Your task to perform on an android device: Open CNN.com Image 0: 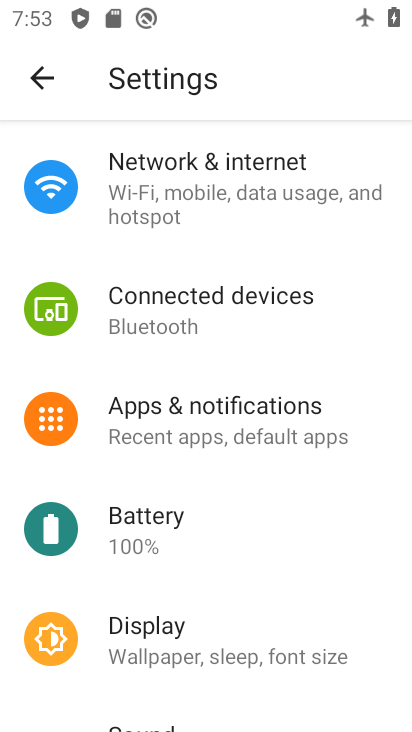
Step 0: press home button
Your task to perform on an android device: Open CNN.com Image 1: 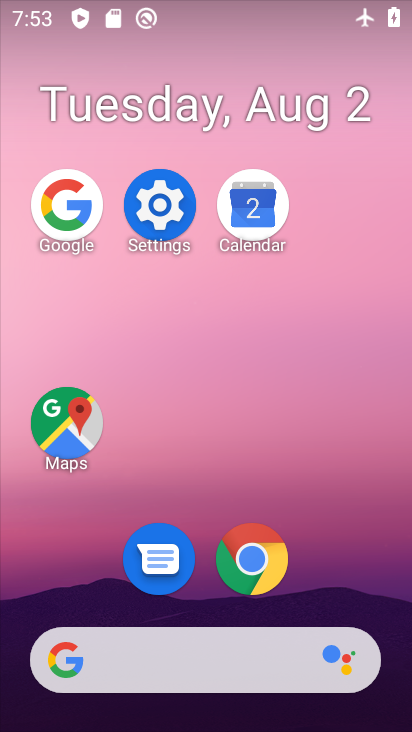
Step 1: click (259, 557)
Your task to perform on an android device: Open CNN.com Image 2: 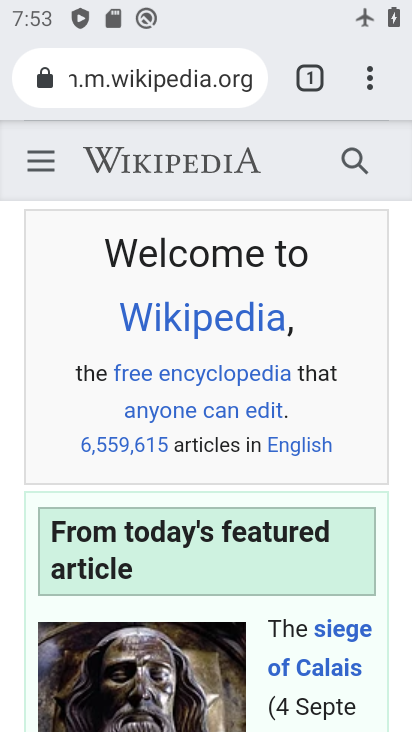
Step 2: click (293, 90)
Your task to perform on an android device: Open CNN.com Image 3: 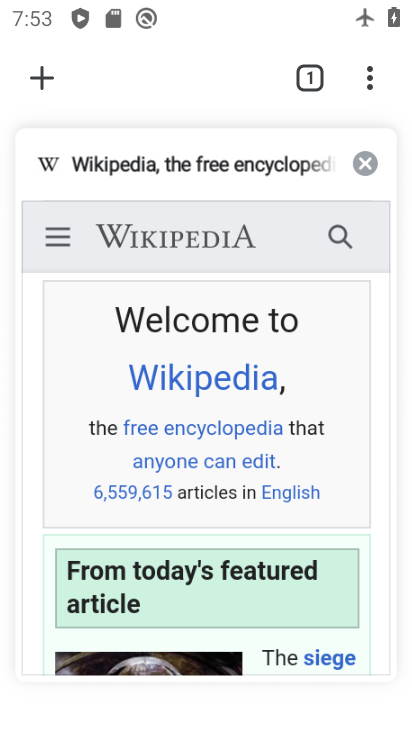
Step 3: click (55, 86)
Your task to perform on an android device: Open CNN.com Image 4: 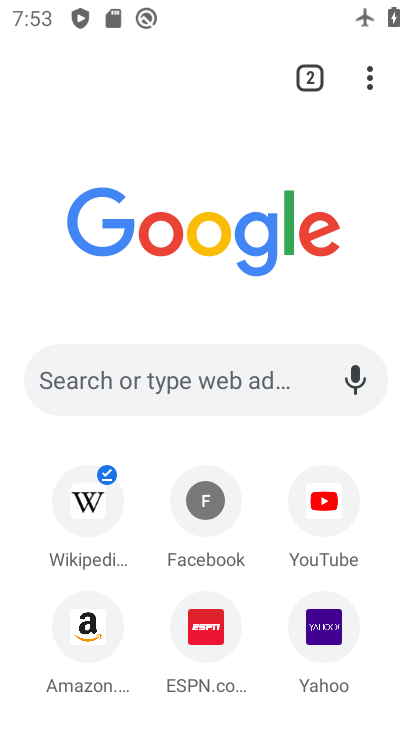
Step 4: click (175, 376)
Your task to perform on an android device: Open CNN.com Image 5: 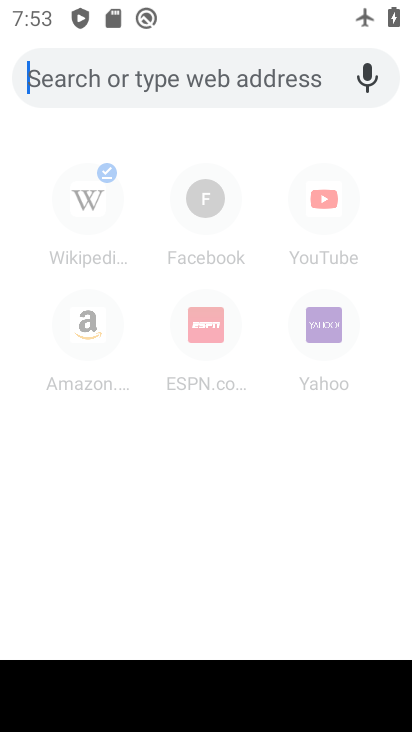
Step 5: type "cnn"
Your task to perform on an android device: Open CNN.com Image 6: 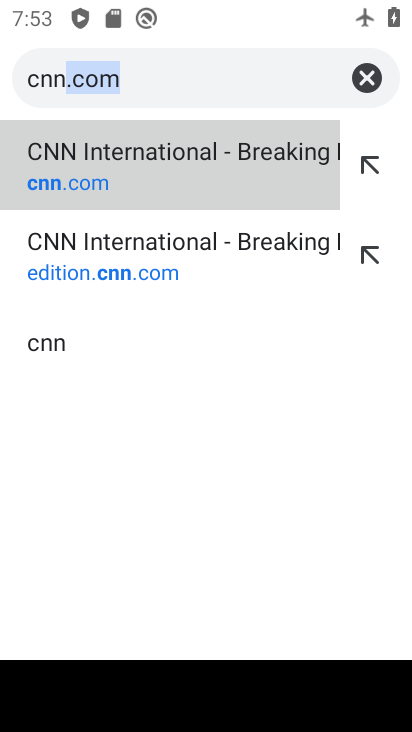
Step 6: click (110, 164)
Your task to perform on an android device: Open CNN.com Image 7: 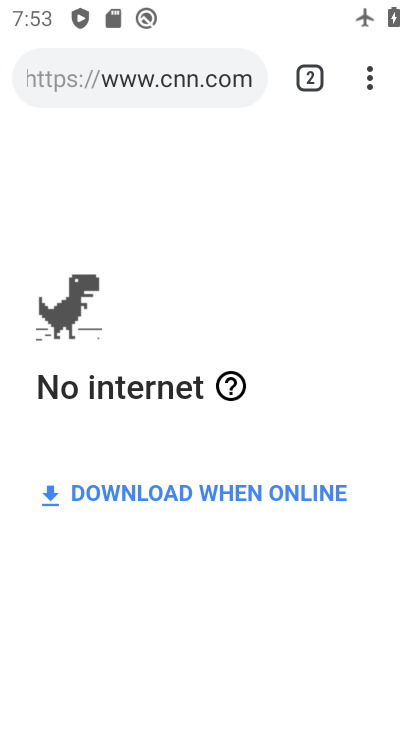
Step 7: task complete